Your task to perform on an android device: open a new tab in the chrome app Image 0: 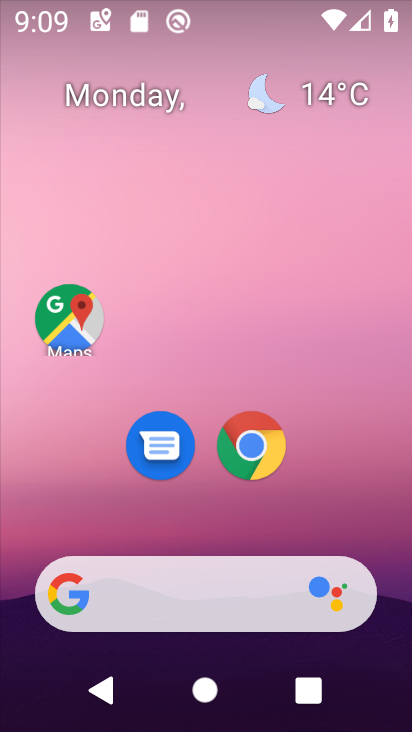
Step 0: click (247, 438)
Your task to perform on an android device: open a new tab in the chrome app Image 1: 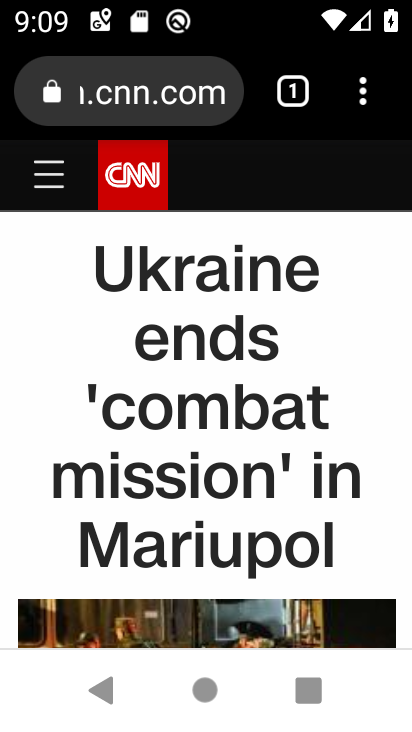
Step 1: click (287, 93)
Your task to perform on an android device: open a new tab in the chrome app Image 2: 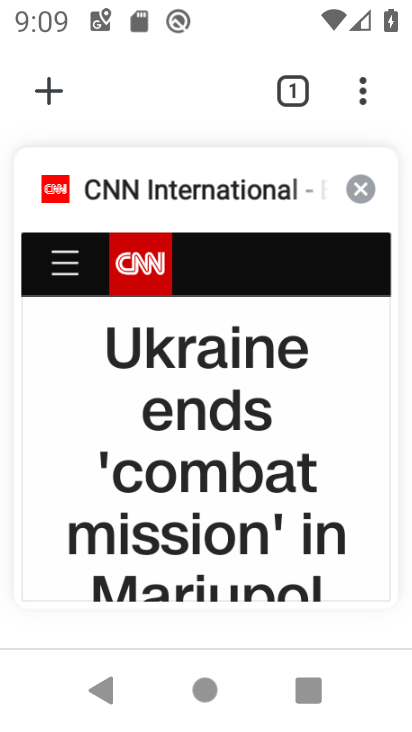
Step 2: click (51, 91)
Your task to perform on an android device: open a new tab in the chrome app Image 3: 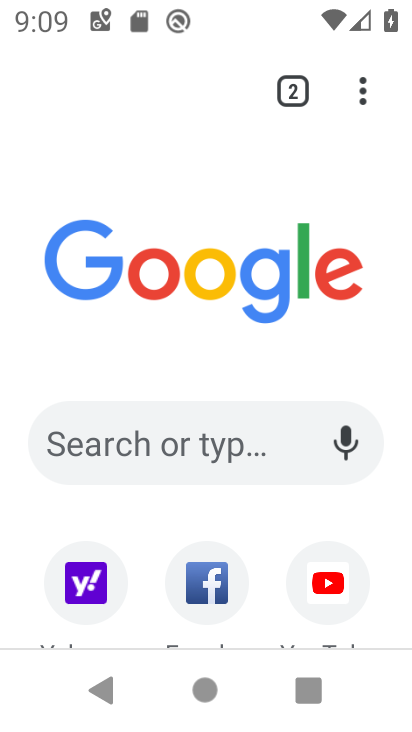
Step 3: task complete